Your task to perform on an android device: toggle pop-ups in chrome Image 0: 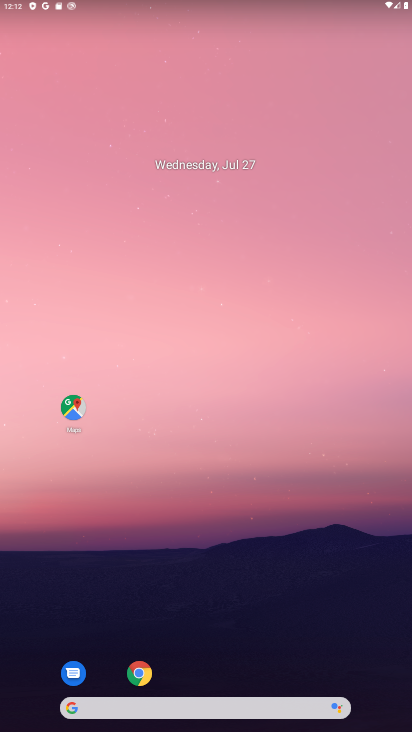
Step 0: click (139, 675)
Your task to perform on an android device: toggle pop-ups in chrome Image 1: 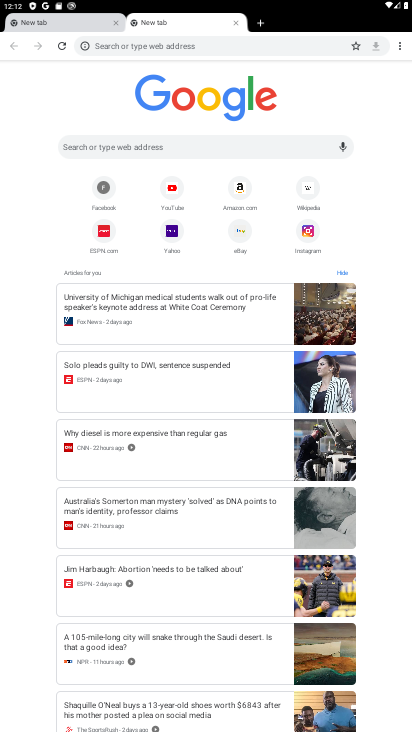
Step 1: drag from (402, 49) to (318, 210)
Your task to perform on an android device: toggle pop-ups in chrome Image 2: 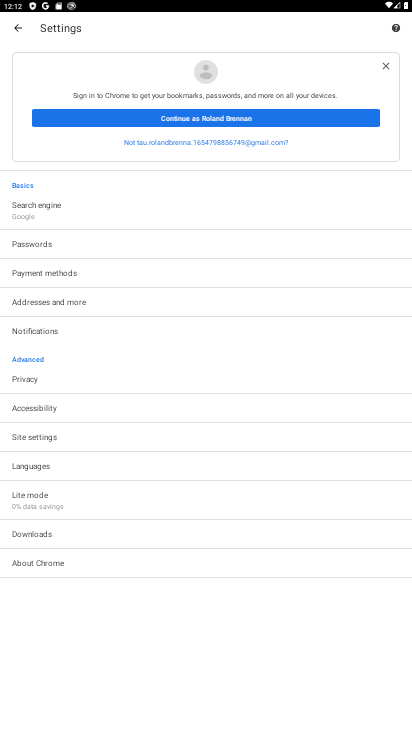
Step 2: click (22, 442)
Your task to perform on an android device: toggle pop-ups in chrome Image 3: 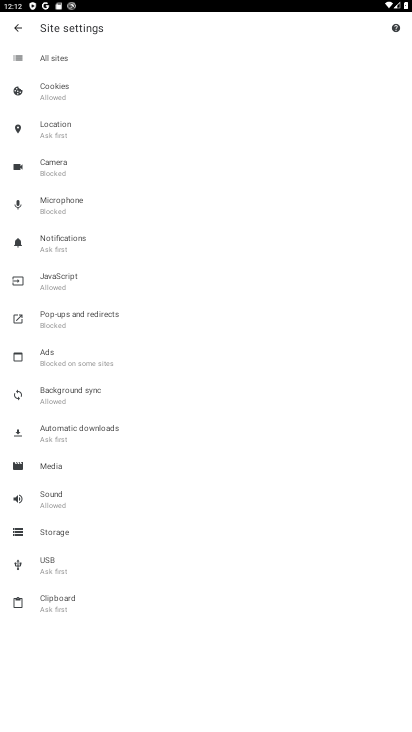
Step 3: click (54, 323)
Your task to perform on an android device: toggle pop-ups in chrome Image 4: 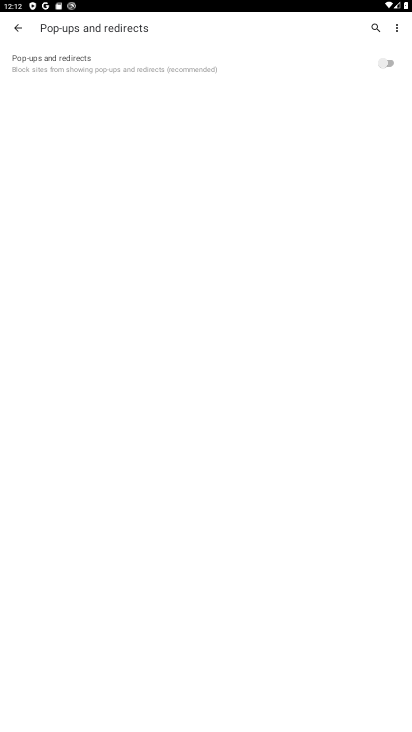
Step 4: click (392, 72)
Your task to perform on an android device: toggle pop-ups in chrome Image 5: 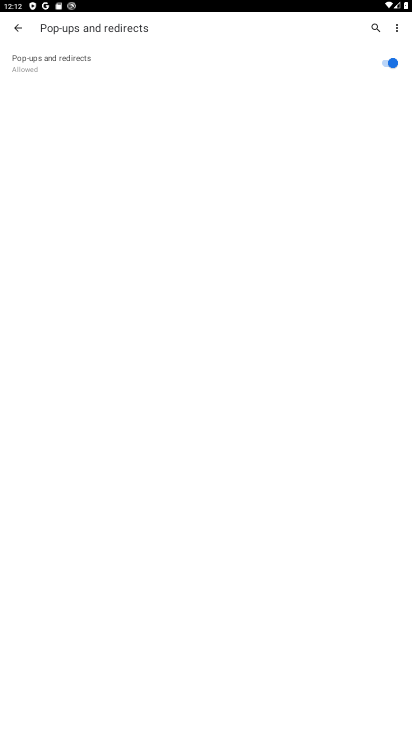
Step 5: task complete